Your task to perform on an android device: change the clock display to show seconds Image 0: 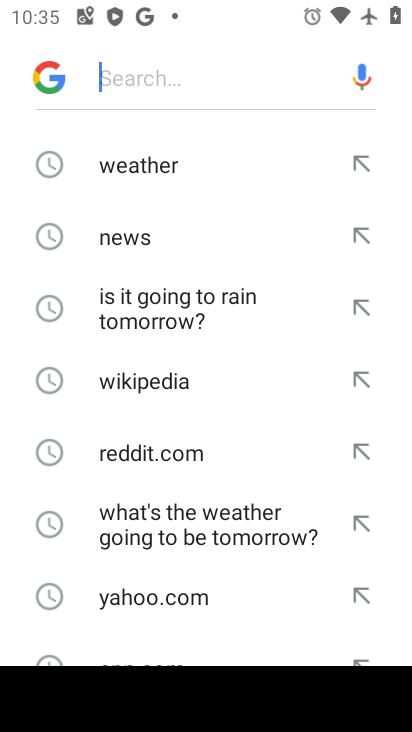
Step 0: press home button
Your task to perform on an android device: change the clock display to show seconds Image 1: 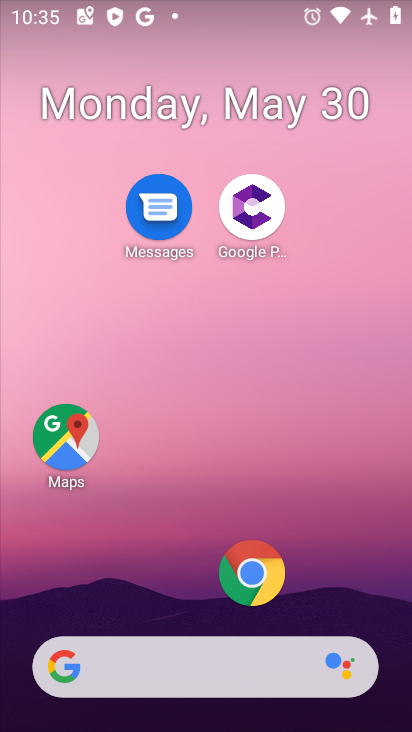
Step 1: drag from (172, 621) to (326, 29)
Your task to perform on an android device: change the clock display to show seconds Image 2: 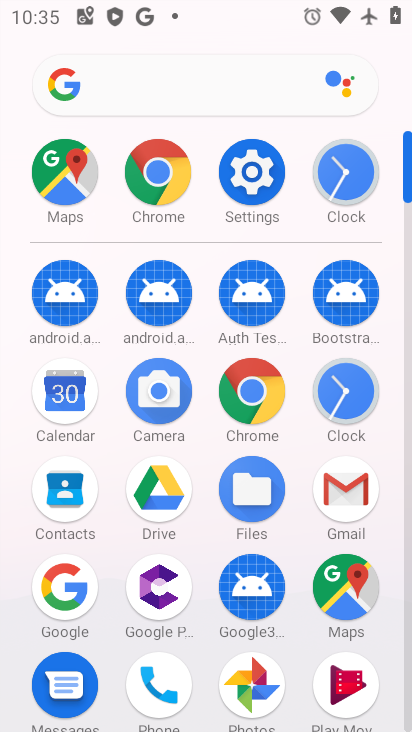
Step 2: click (354, 392)
Your task to perform on an android device: change the clock display to show seconds Image 3: 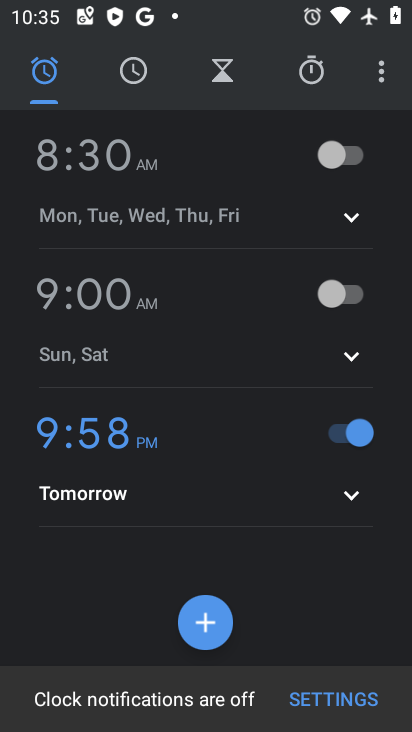
Step 3: click (393, 70)
Your task to perform on an android device: change the clock display to show seconds Image 4: 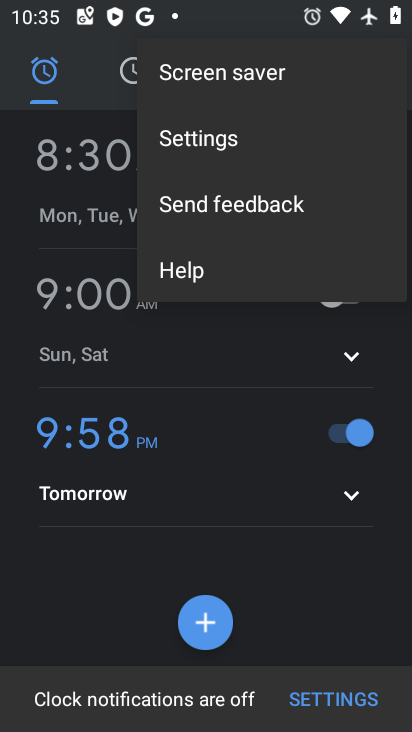
Step 4: click (231, 146)
Your task to perform on an android device: change the clock display to show seconds Image 5: 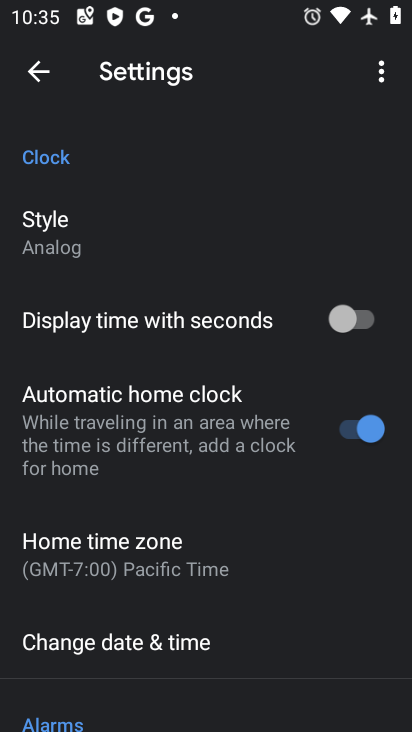
Step 5: click (235, 325)
Your task to perform on an android device: change the clock display to show seconds Image 6: 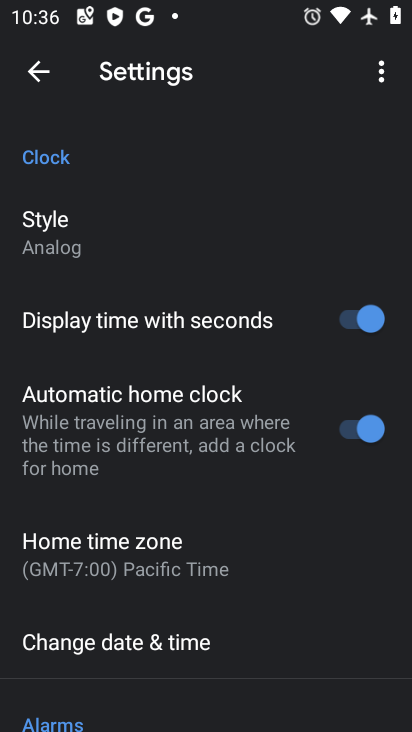
Step 6: task complete